Your task to perform on an android device: delete a single message in the gmail app Image 0: 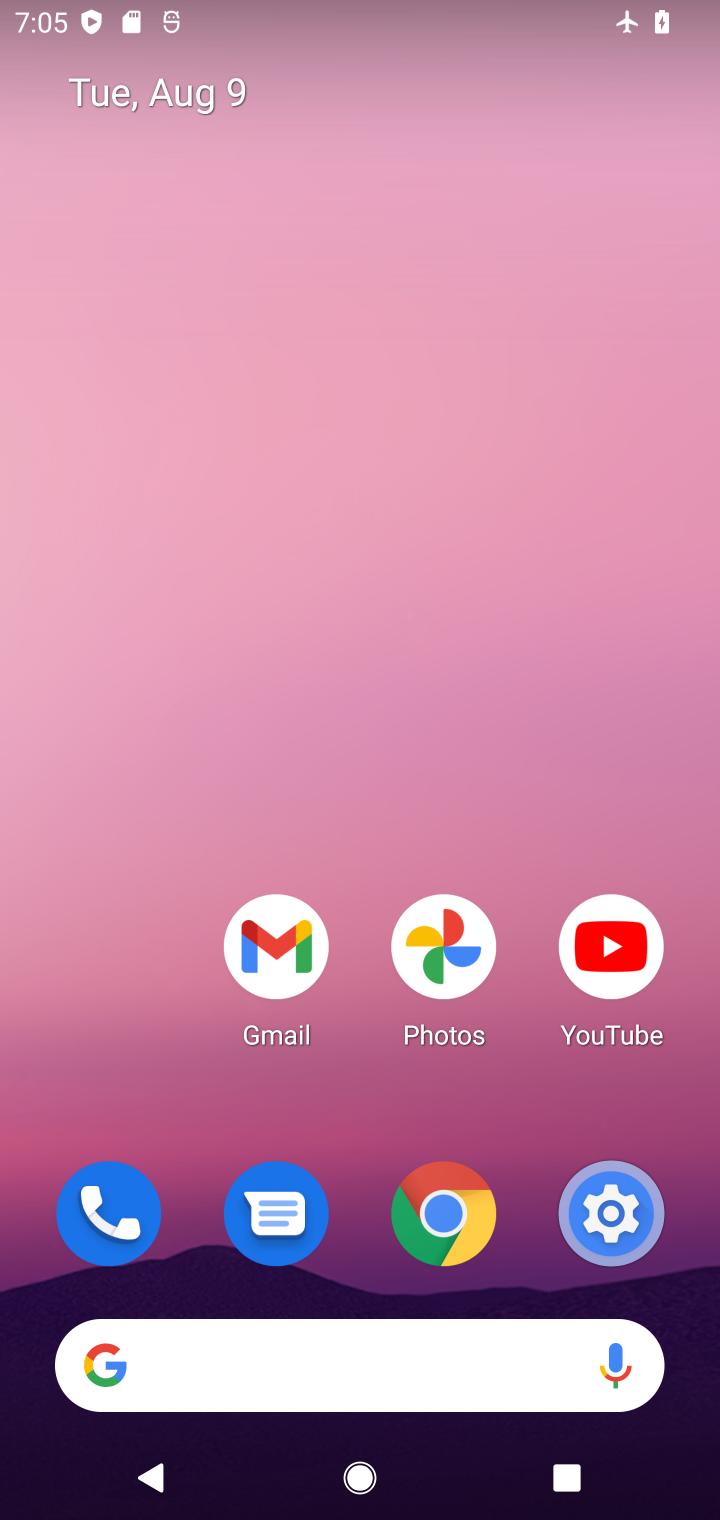
Step 0: press back button
Your task to perform on an android device: delete a single message in the gmail app Image 1: 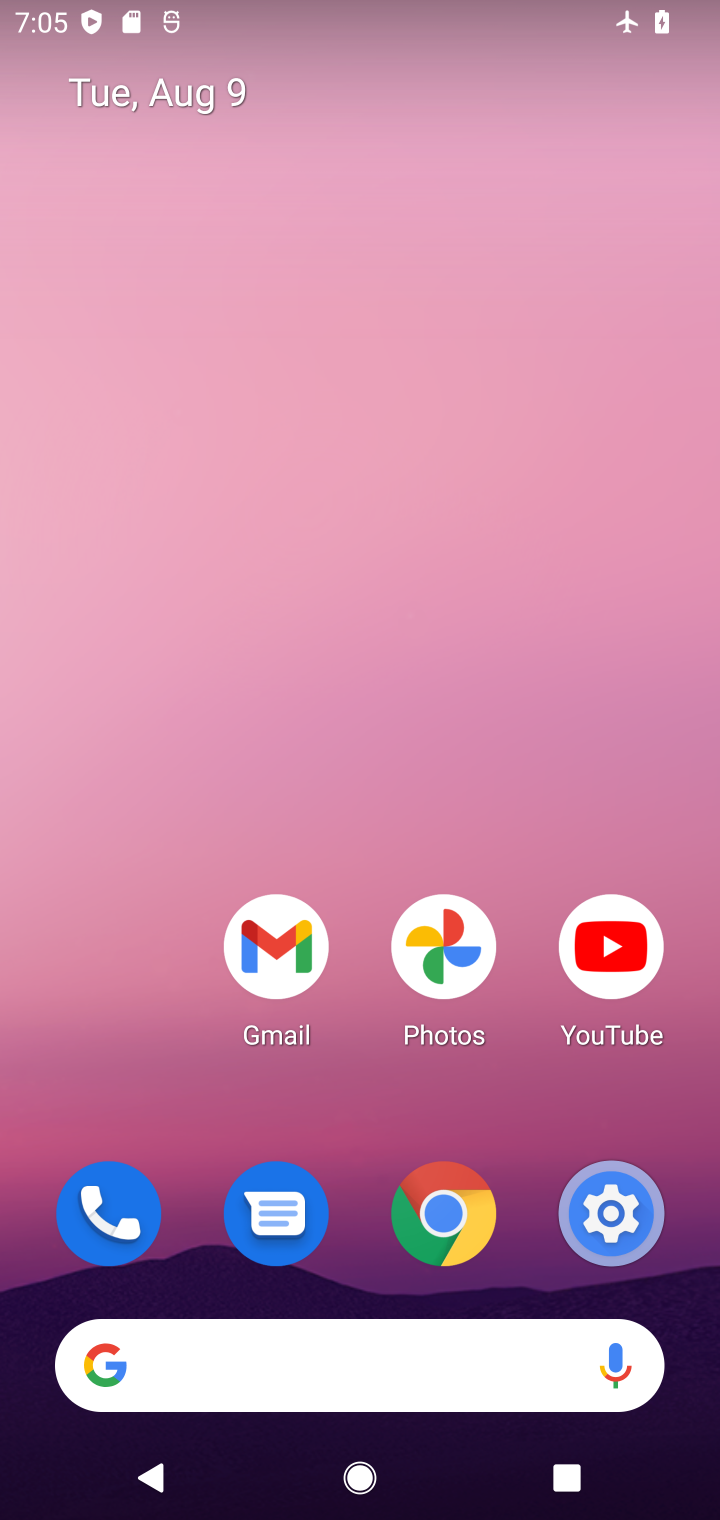
Step 1: drag from (368, 1268) to (340, 190)
Your task to perform on an android device: delete a single message in the gmail app Image 2: 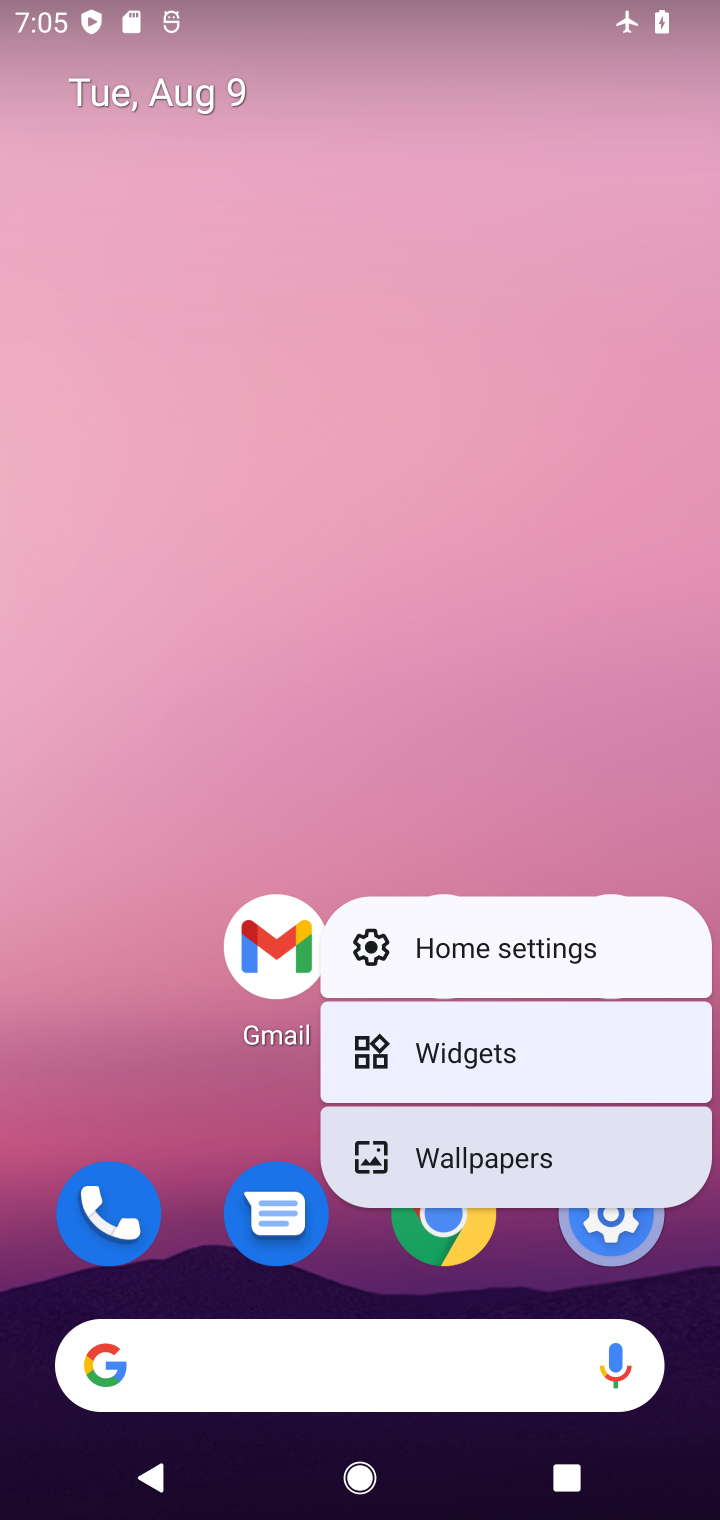
Step 2: click (259, 414)
Your task to perform on an android device: delete a single message in the gmail app Image 3: 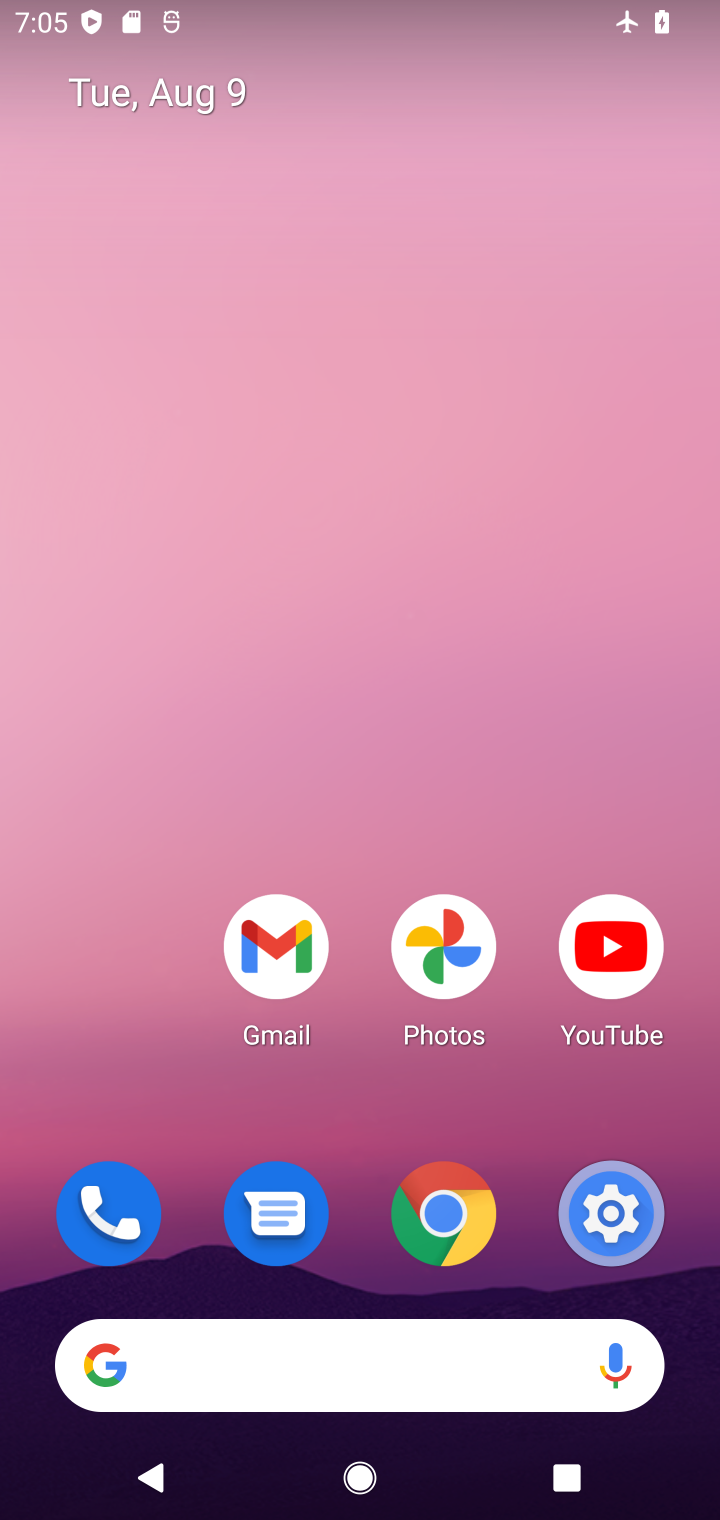
Step 3: drag from (361, 1283) to (331, 250)
Your task to perform on an android device: delete a single message in the gmail app Image 4: 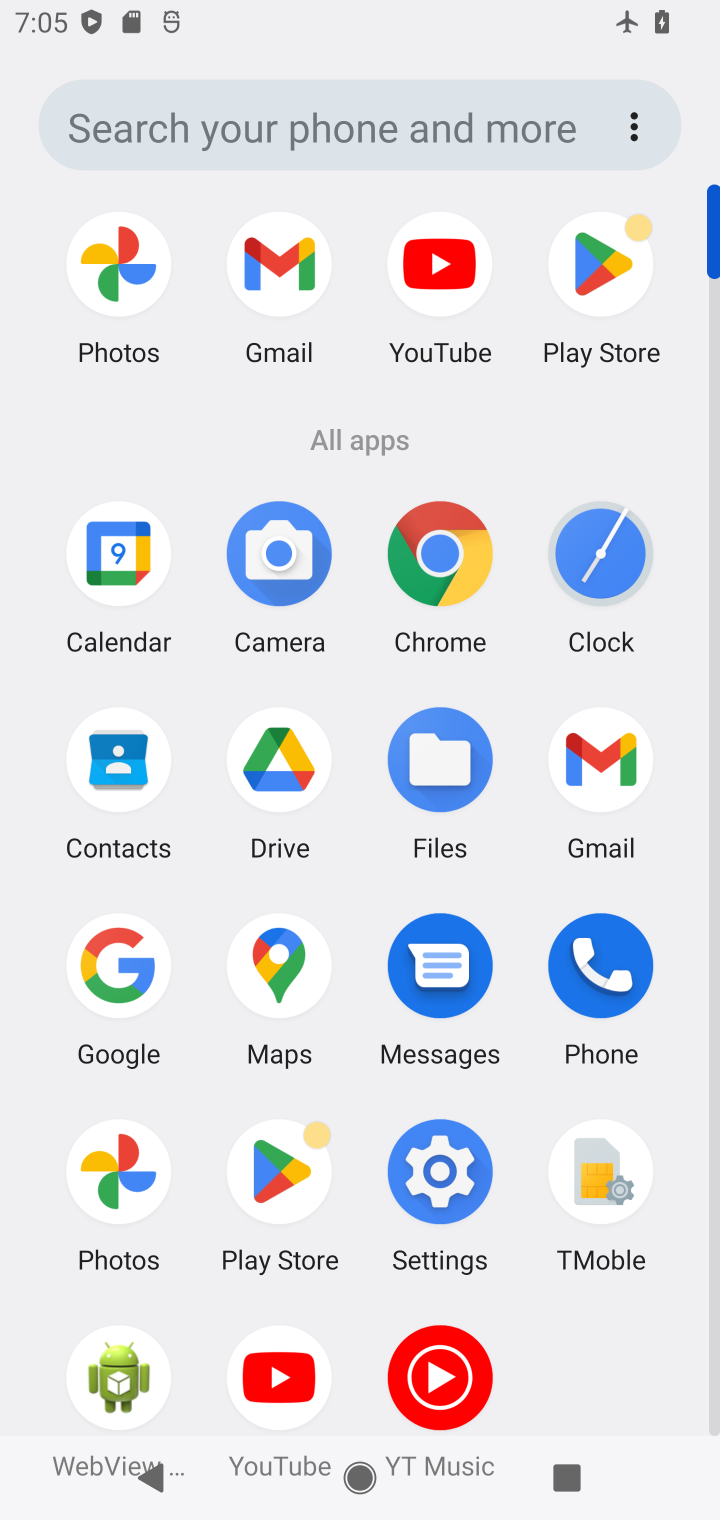
Step 4: click (587, 793)
Your task to perform on an android device: delete a single message in the gmail app Image 5: 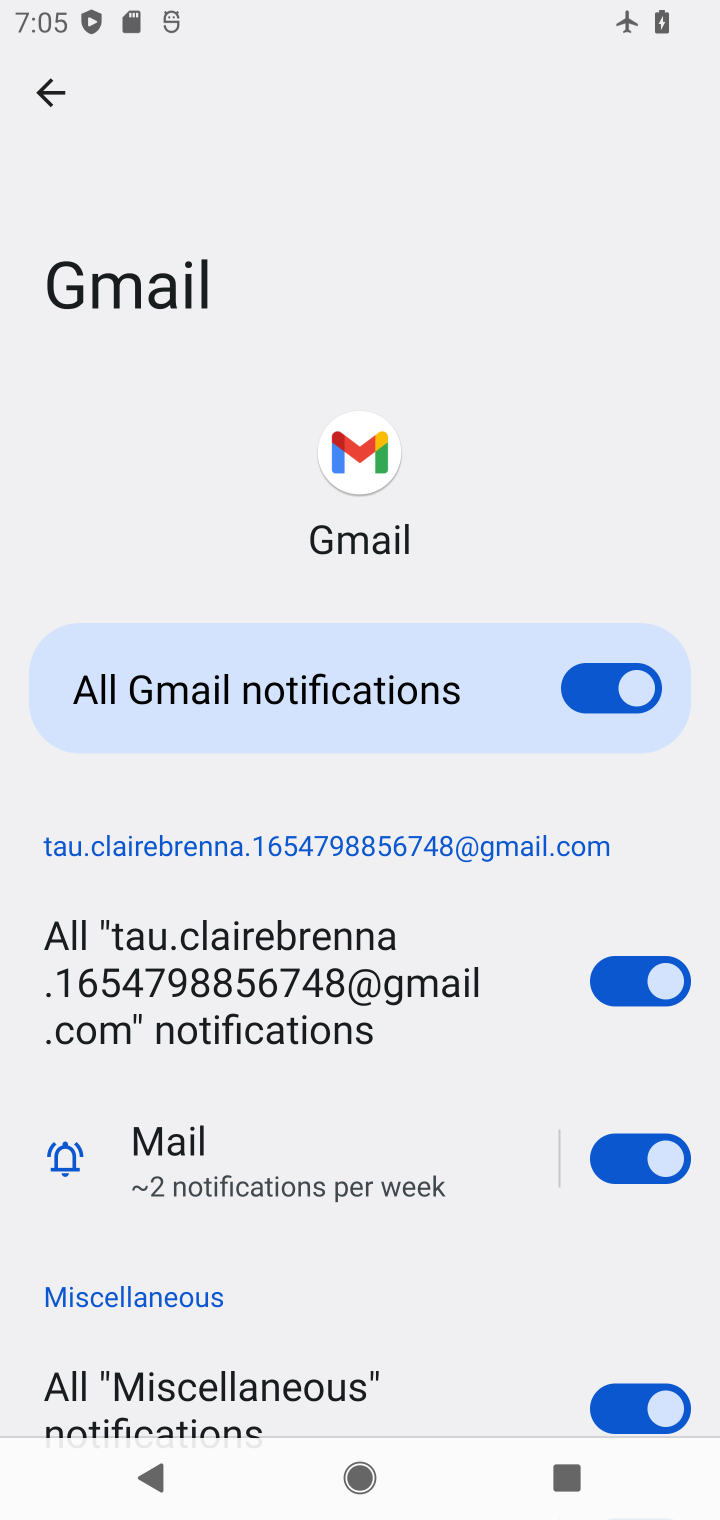
Step 5: click (54, 106)
Your task to perform on an android device: delete a single message in the gmail app Image 6: 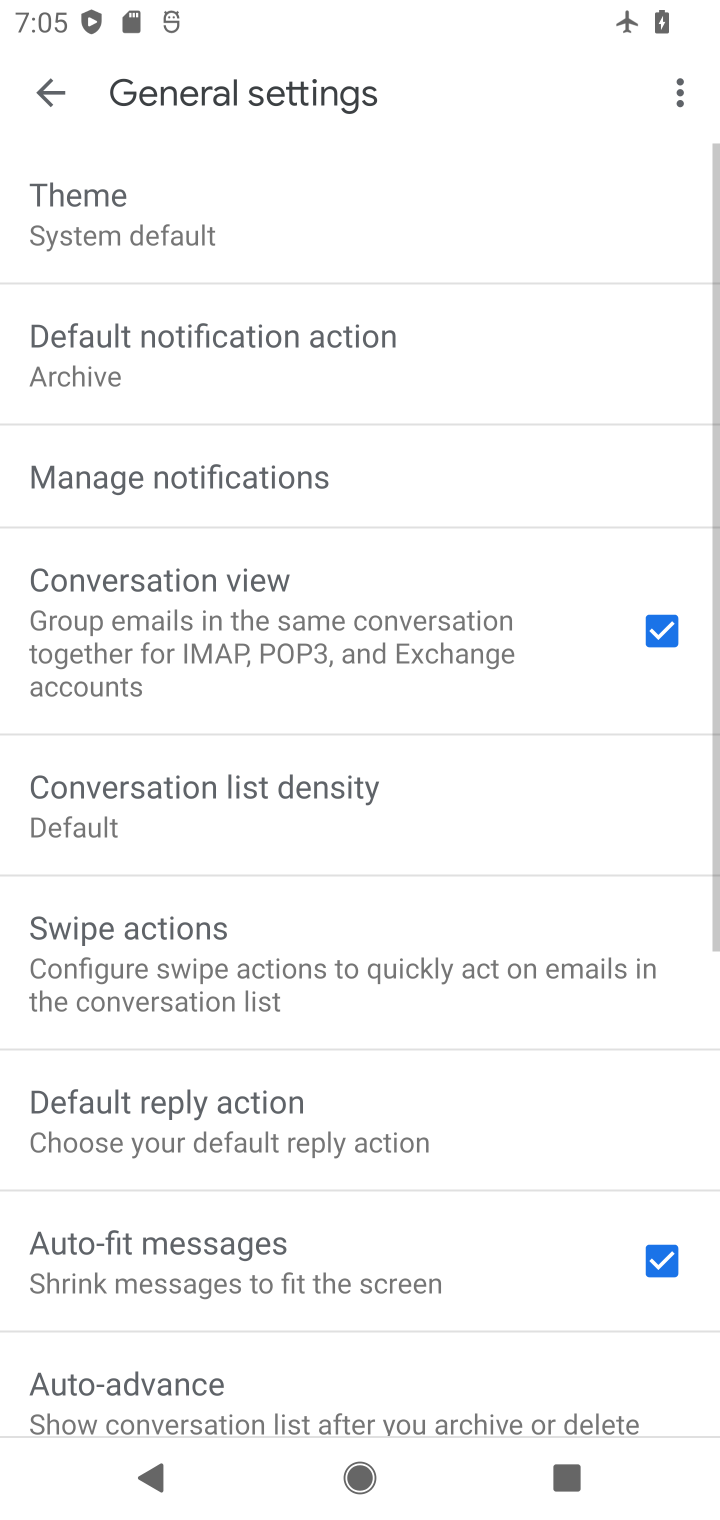
Step 6: click (54, 106)
Your task to perform on an android device: delete a single message in the gmail app Image 7: 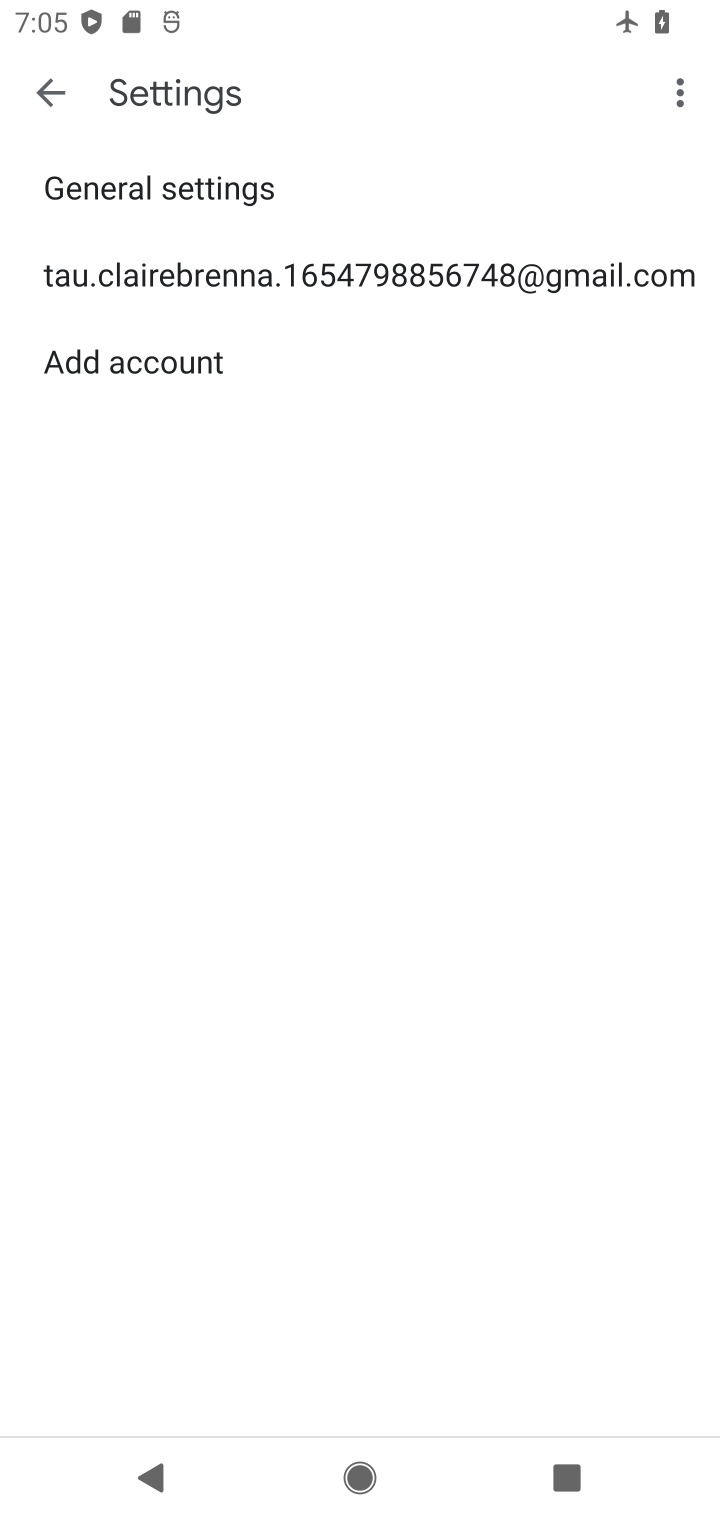
Step 7: click (54, 106)
Your task to perform on an android device: delete a single message in the gmail app Image 8: 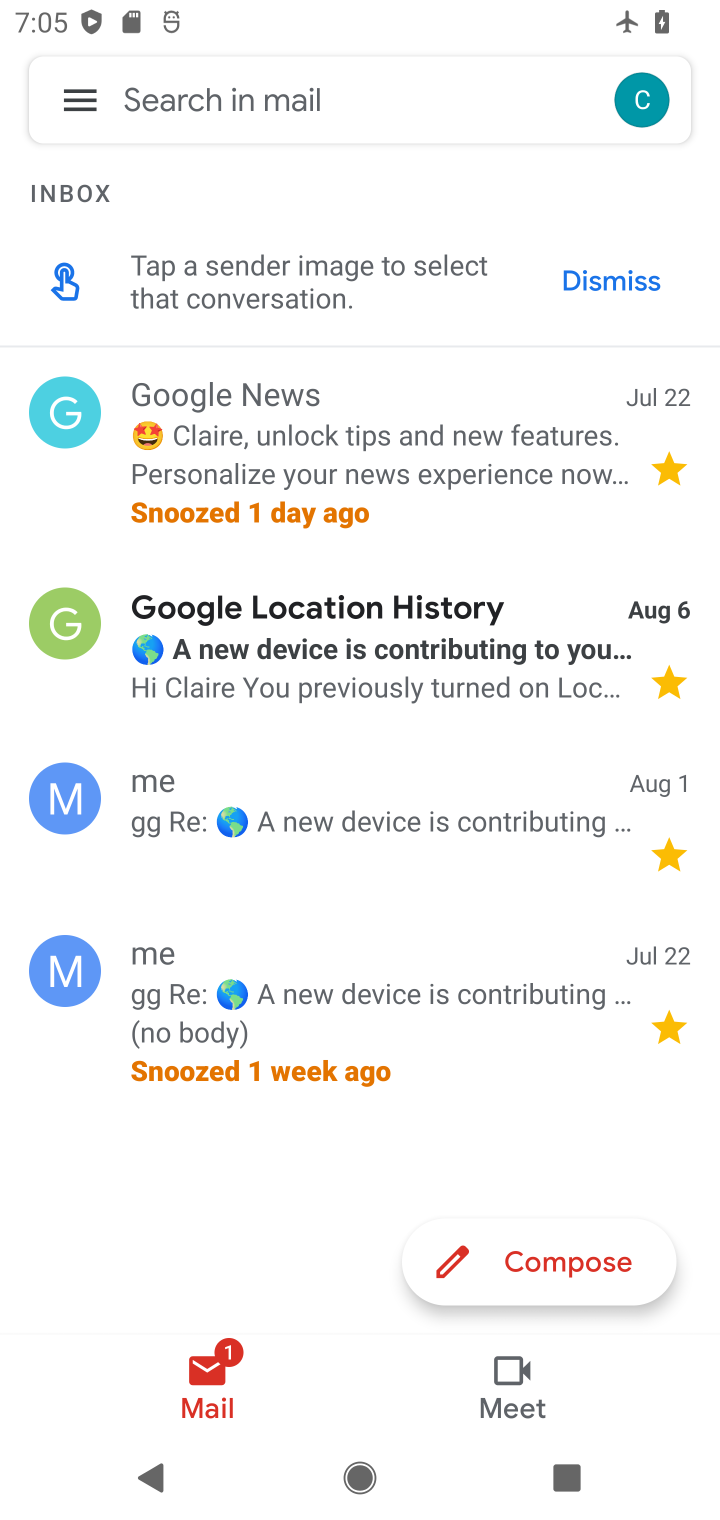
Step 8: click (190, 450)
Your task to perform on an android device: delete a single message in the gmail app Image 9: 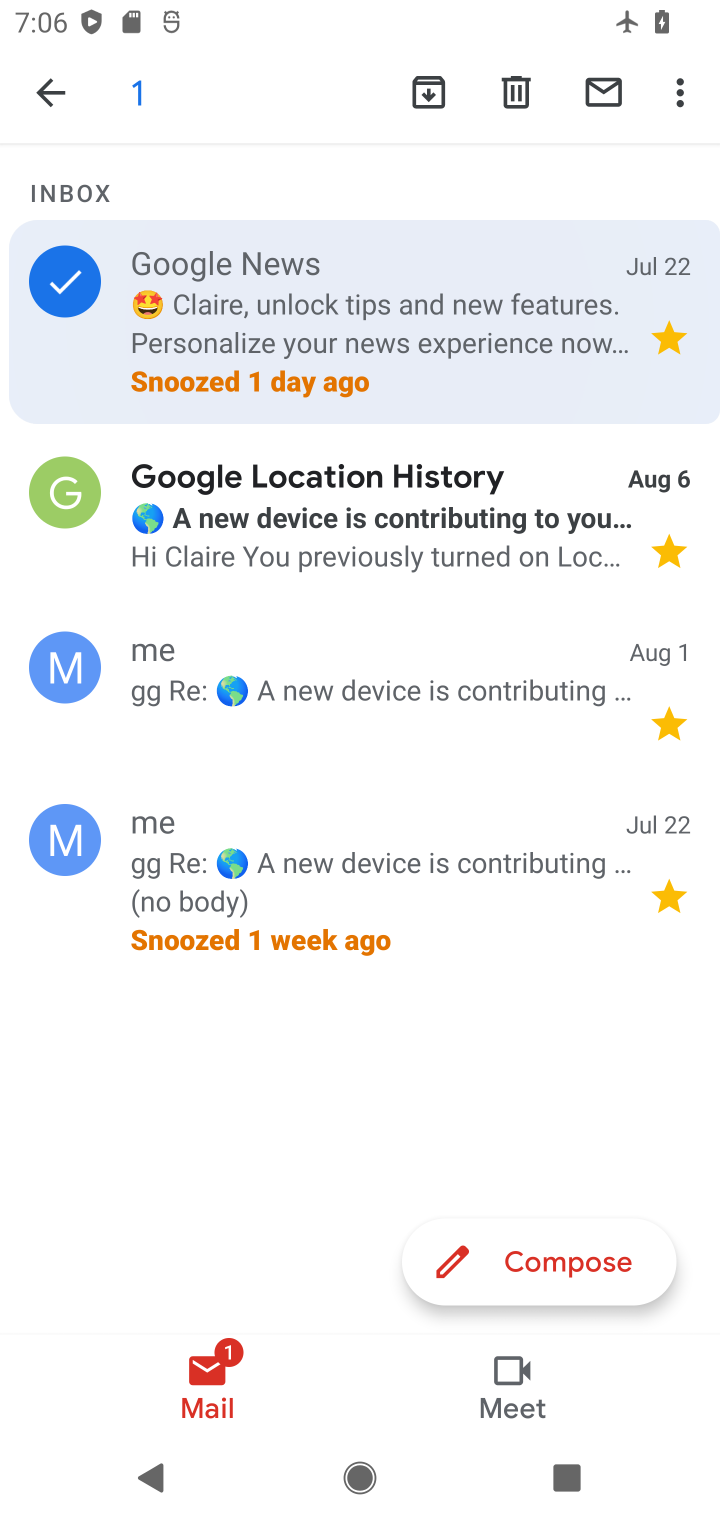
Step 9: click (190, 450)
Your task to perform on an android device: delete a single message in the gmail app Image 10: 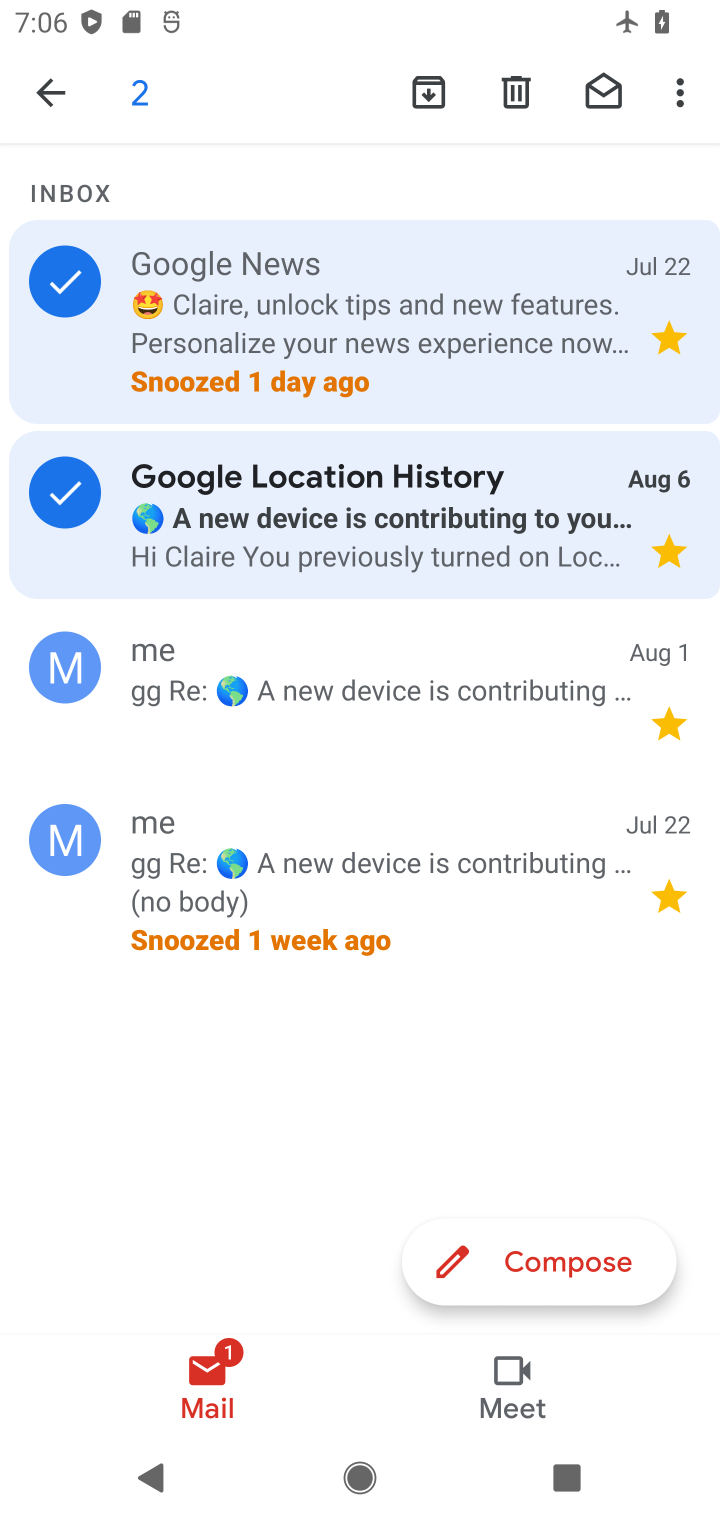
Step 10: click (511, 97)
Your task to perform on an android device: delete a single message in the gmail app Image 11: 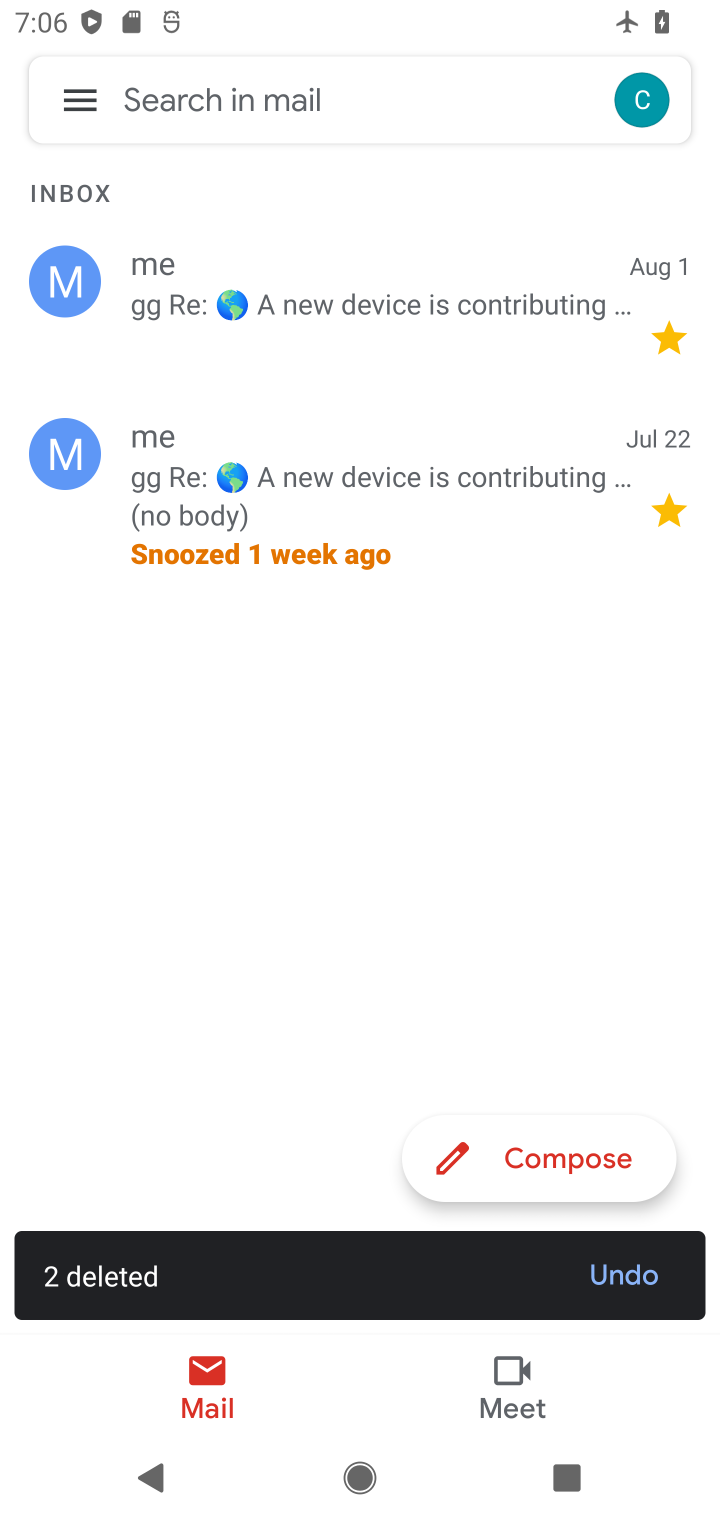
Step 11: task complete